Your task to perform on an android device: open app "LinkedIn" (install if not already installed) Image 0: 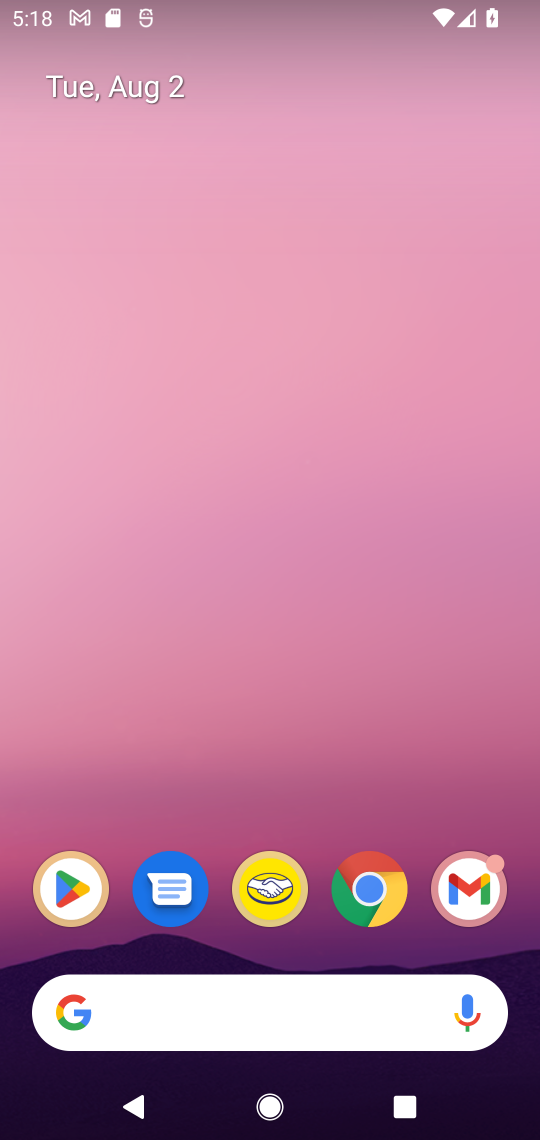
Step 0: drag from (409, 802) to (387, 117)
Your task to perform on an android device: open app "LinkedIn" (install if not already installed) Image 1: 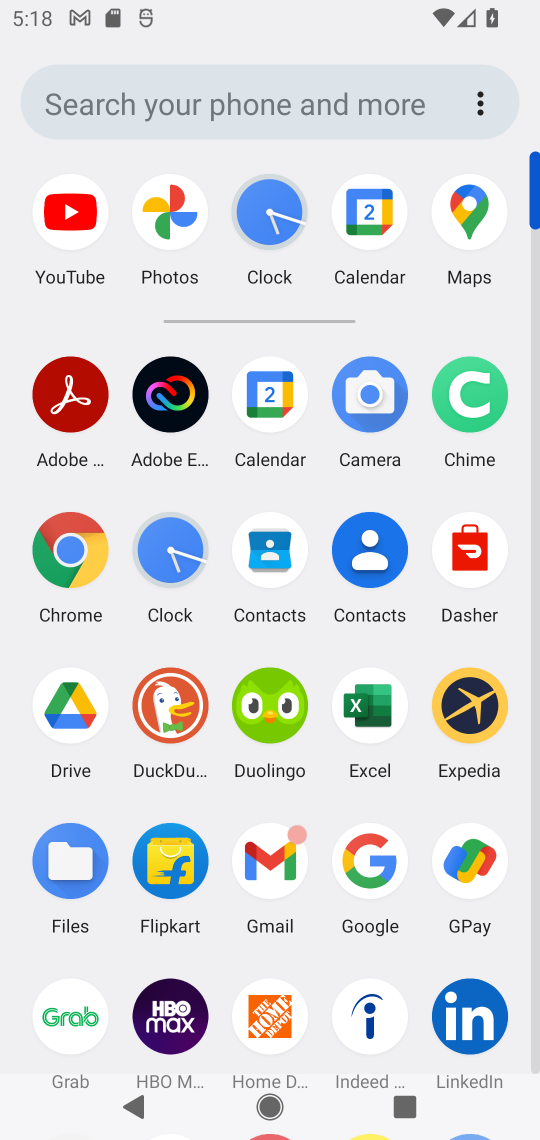
Step 1: drag from (505, 963) to (495, 659)
Your task to perform on an android device: open app "LinkedIn" (install if not already installed) Image 2: 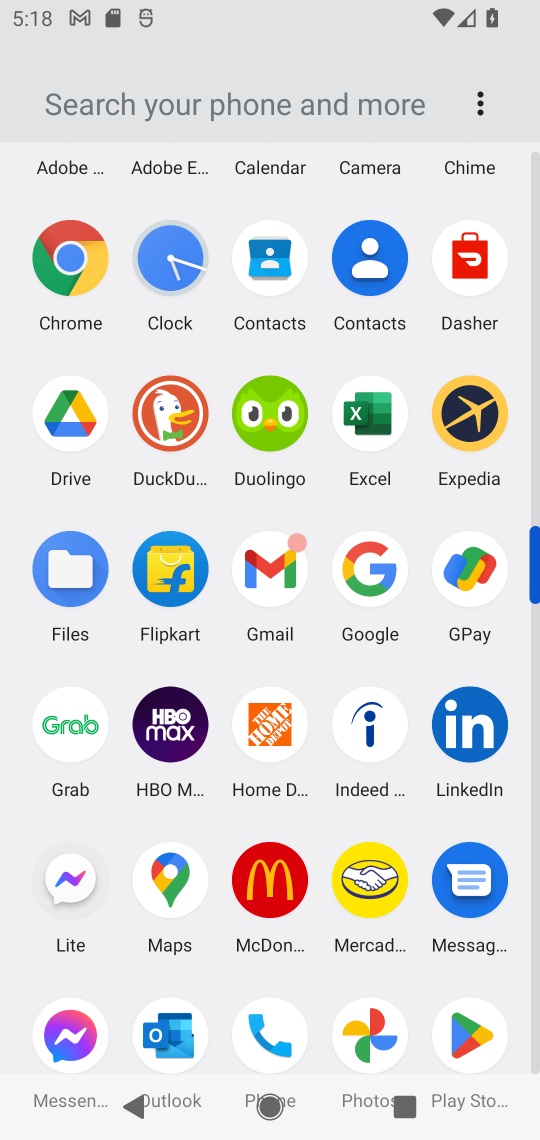
Step 2: drag from (512, 949) to (510, 583)
Your task to perform on an android device: open app "LinkedIn" (install if not already installed) Image 3: 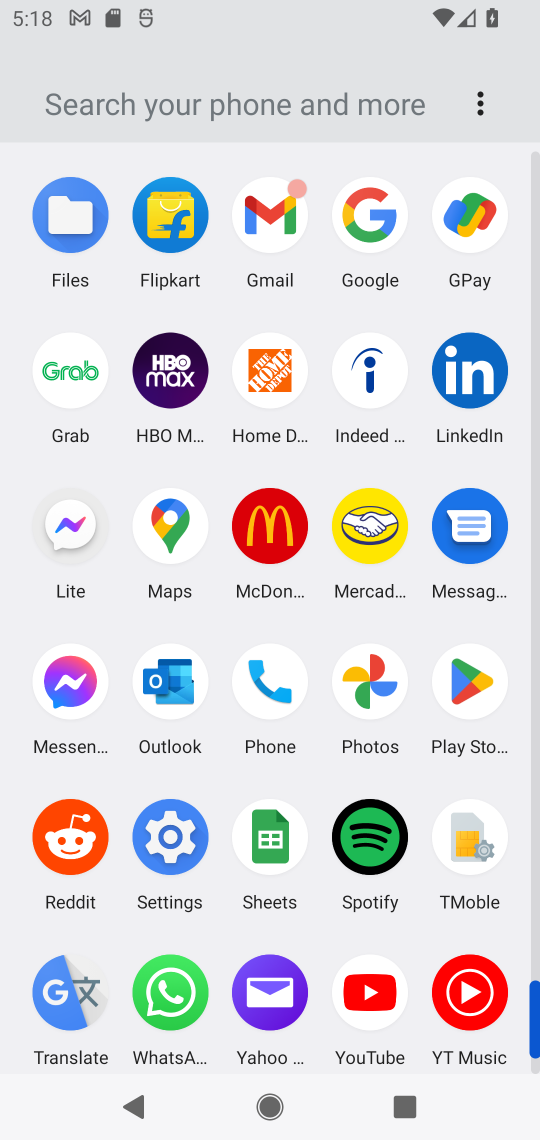
Step 3: click (446, 694)
Your task to perform on an android device: open app "LinkedIn" (install if not already installed) Image 4: 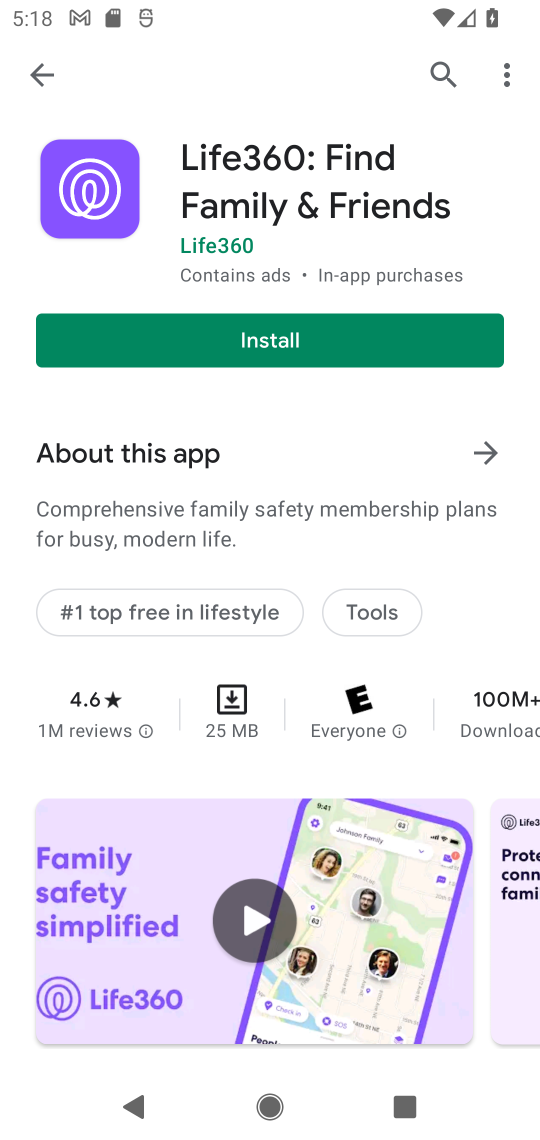
Step 4: click (438, 70)
Your task to perform on an android device: open app "LinkedIn" (install if not already installed) Image 5: 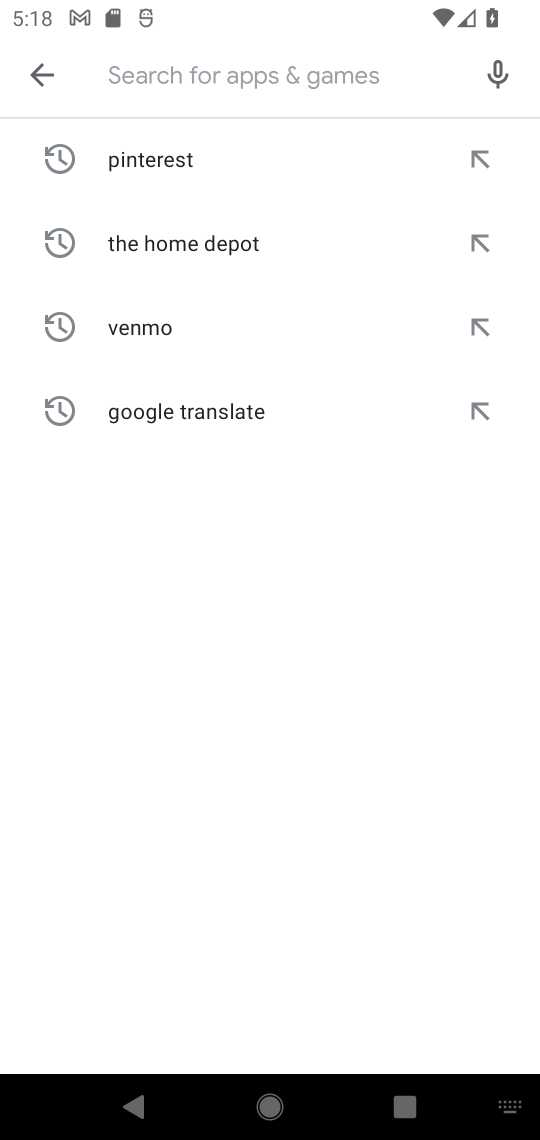
Step 5: click (277, 89)
Your task to perform on an android device: open app "LinkedIn" (install if not already installed) Image 6: 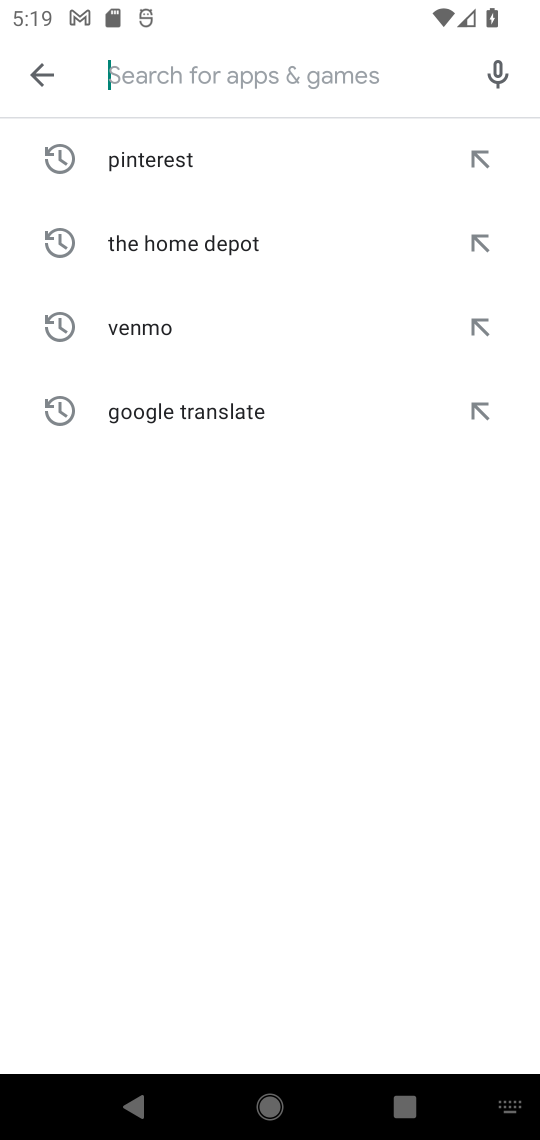
Step 6: type "linkedin"
Your task to perform on an android device: open app "LinkedIn" (install if not already installed) Image 7: 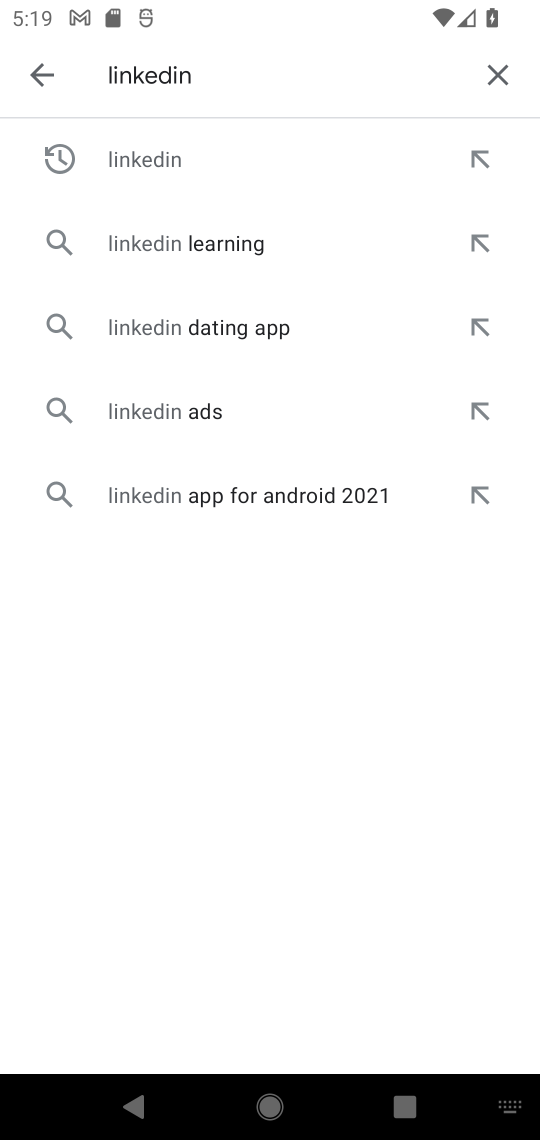
Step 7: click (264, 154)
Your task to perform on an android device: open app "LinkedIn" (install if not already installed) Image 8: 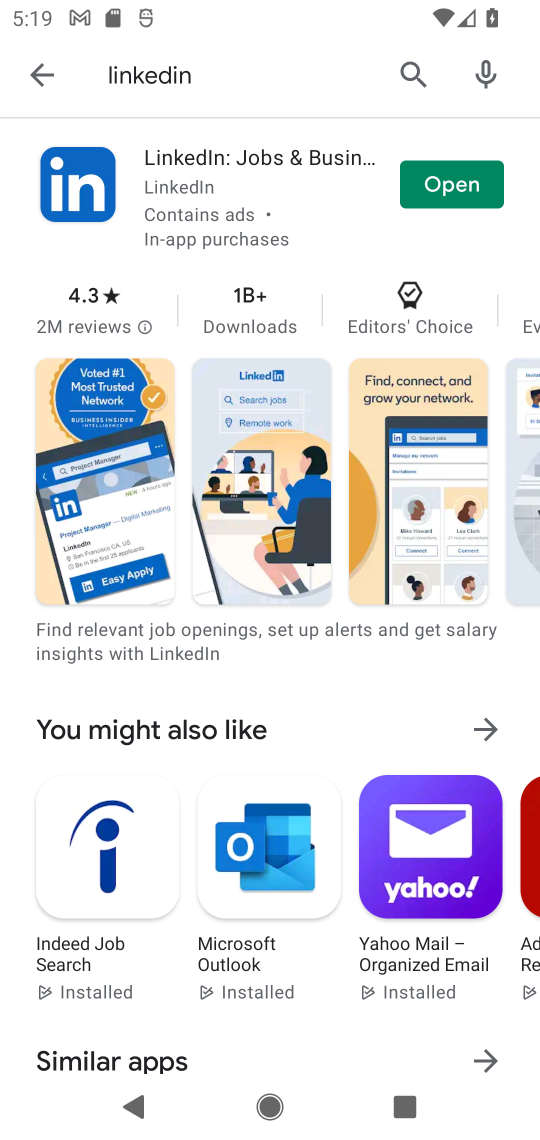
Step 8: click (457, 193)
Your task to perform on an android device: open app "LinkedIn" (install if not already installed) Image 9: 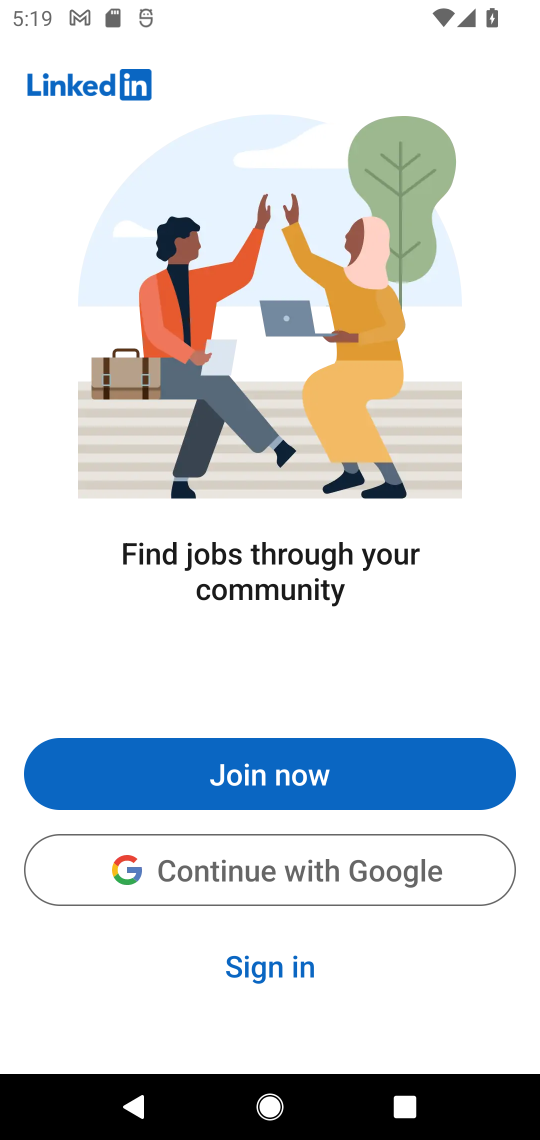
Step 9: task complete